Your task to perform on an android device: Open Google Maps and go to "Timeline" Image 0: 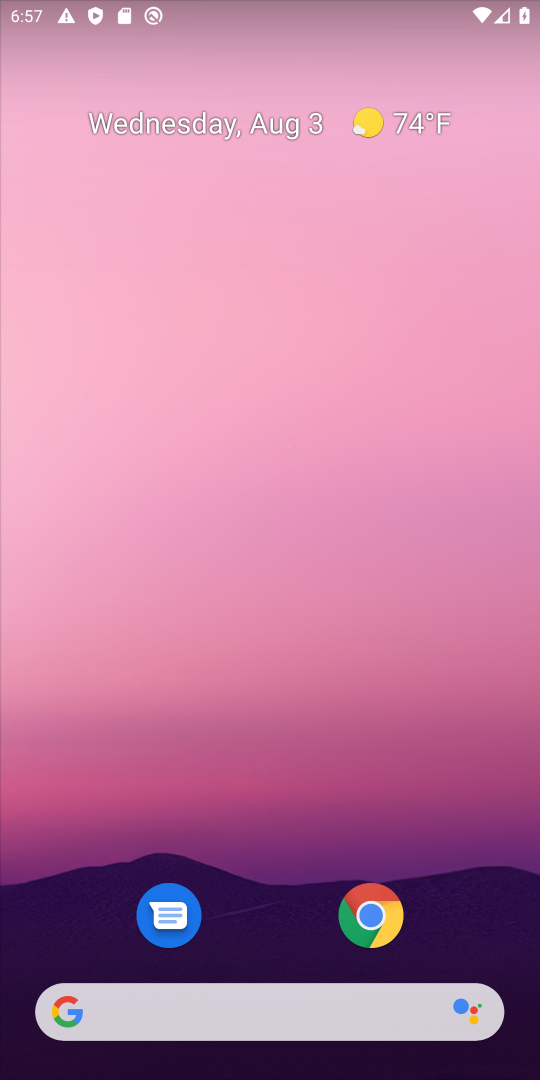
Step 0: drag from (324, 1059) to (297, 378)
Your task to perform on an android device: Open Google Maps and go to "Timeline" Image 1: 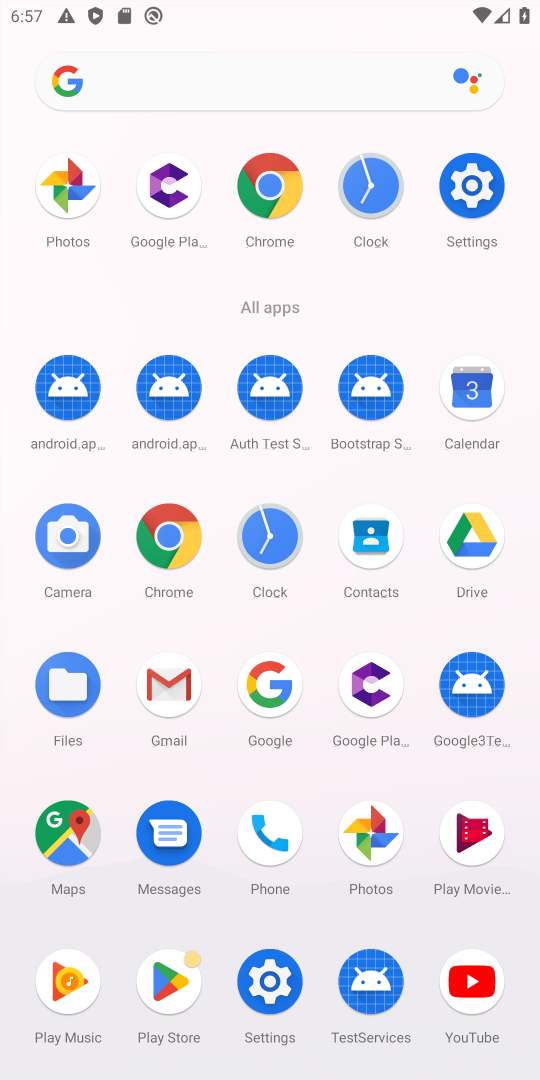
Step 1: click (87, 832)
Your task to perform on an android device: Open Google Maps and go to "Timeline" Image 2: 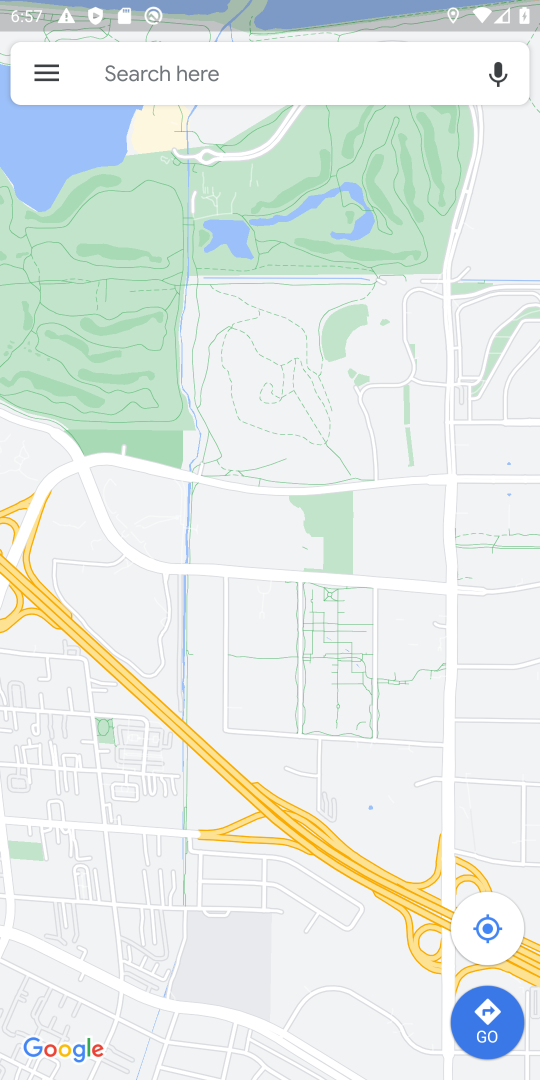
Step 2: click (37, 72)
Your task to perform on an android device: Open Google Maps and go to "Timeline" Image 3: 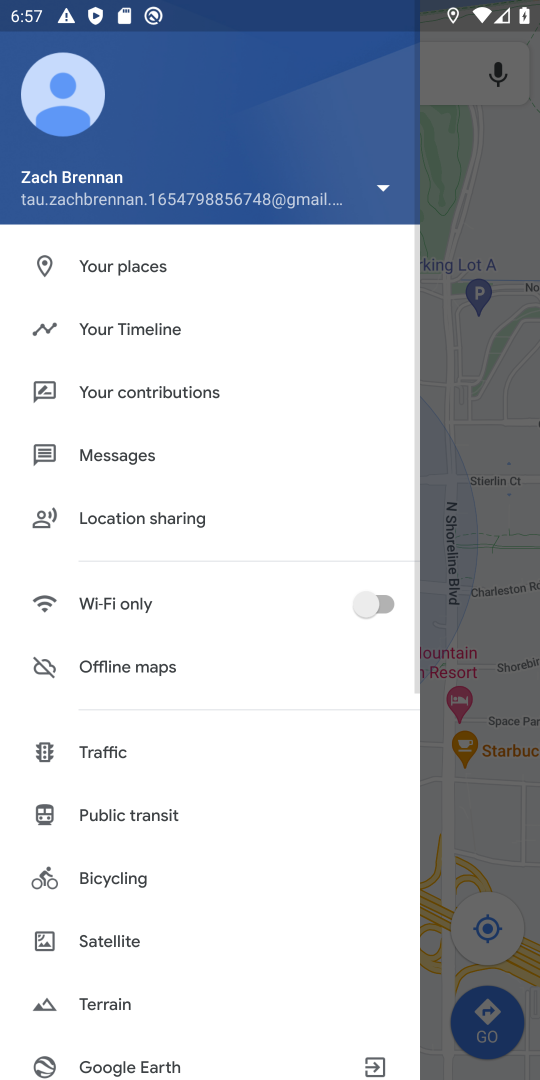
Step 3: click (147, 321)
Your task to perform on an android device: Open Google Maps and go to "Timeline" Image 4: 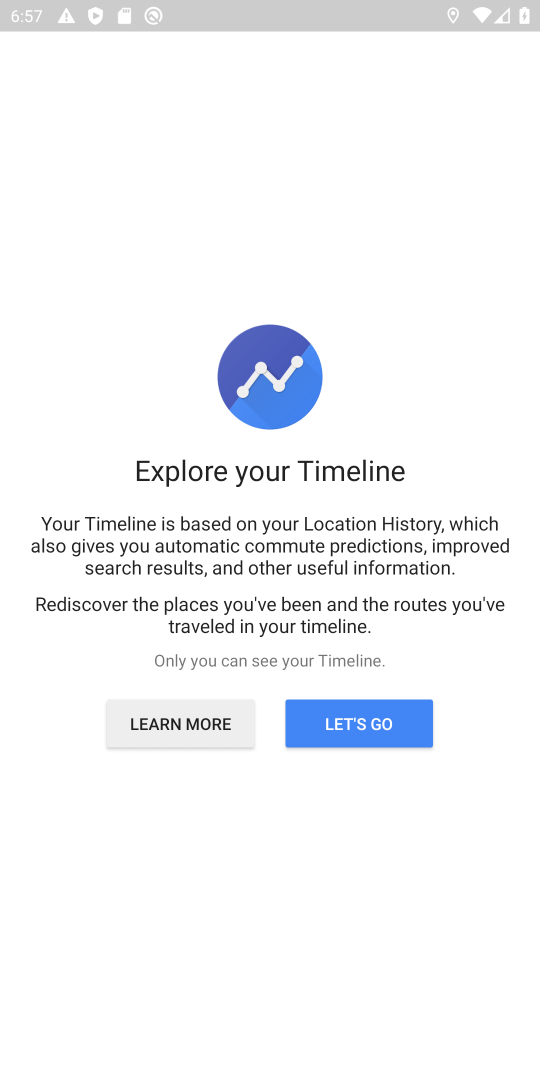
Step 4: click (379, 733)
Your task to perform on an android device: Open Google Maps and go to "Timeline" Image 5: 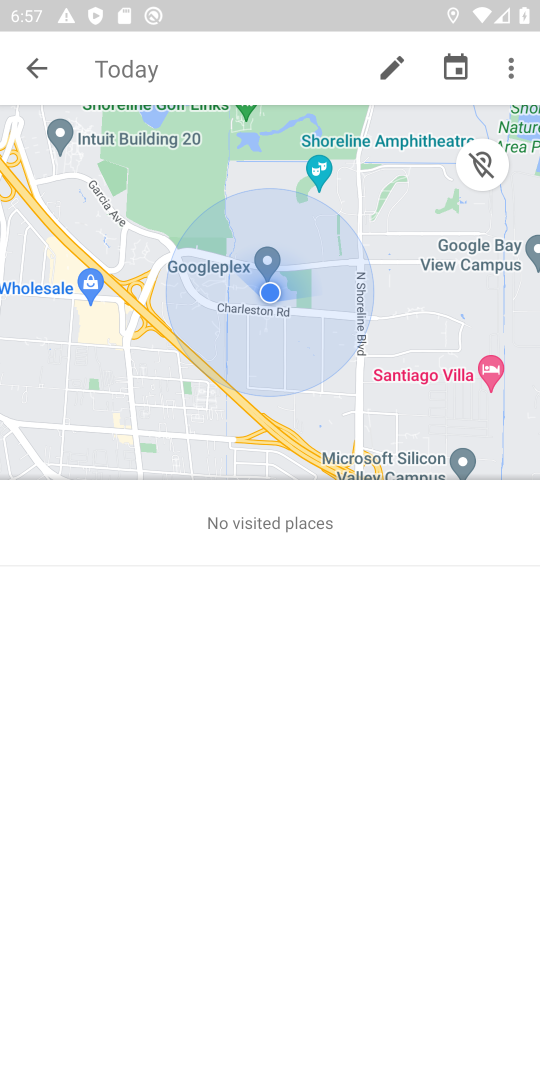
Step 5: task complete